Your task to perform on an android device: add a contact in the contacts app Image 0: 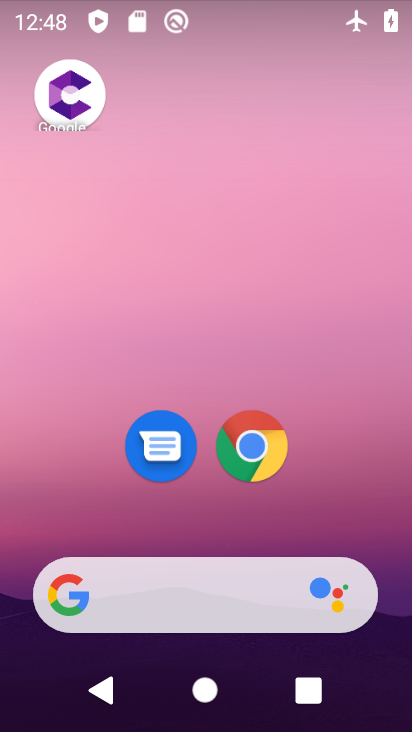
Step 0: drag from (155, 636) to (223, 94)
Your task to perform on an android device: add a contact in the contacts app Image 1: 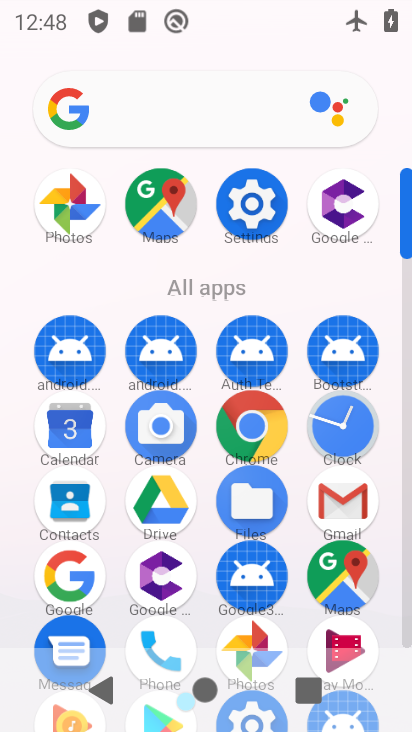
Step 1: click (83, 515)
Your task to perform on an android device: add a contact in the contacts app Image 2: 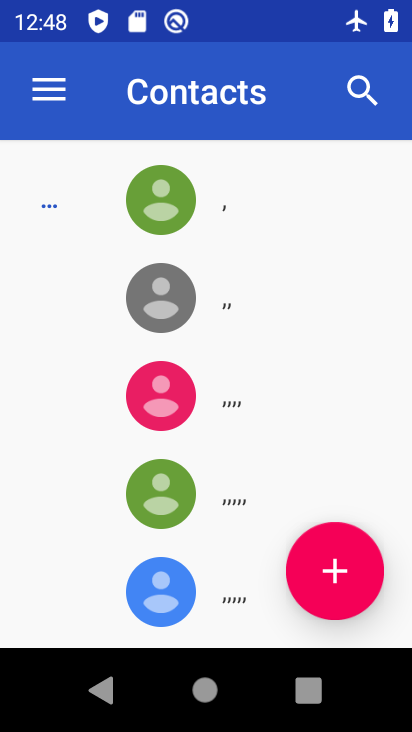
Step 2: click (333, 574)
Your task to perform on an android device: add a contact in the contacts app Image 3: 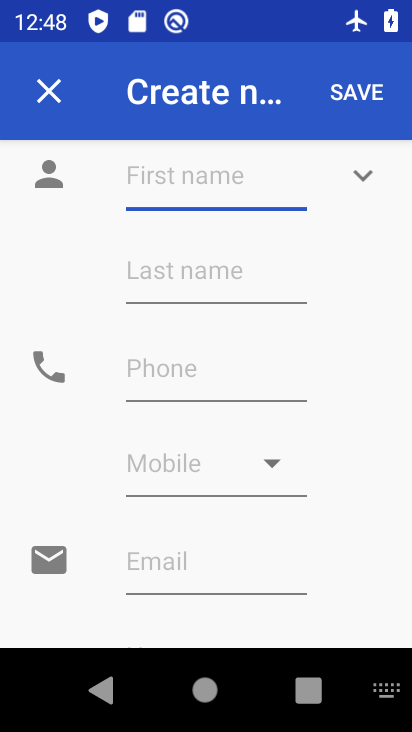
Step 3: type "uyguyg"
Your task to perform on an android device: add a contact in the contacts app Image 4: 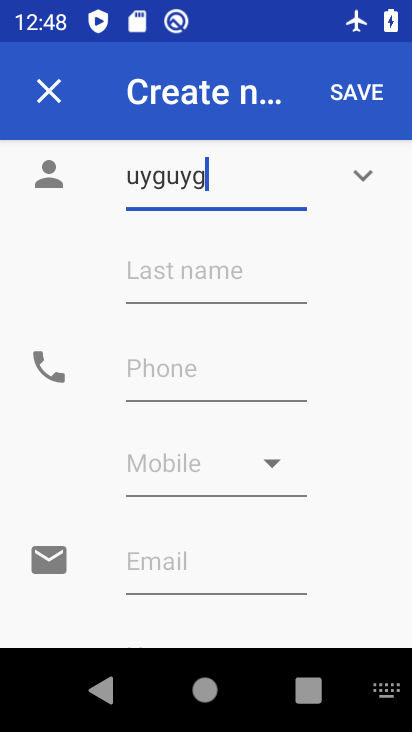
Step 4: click (183, 379)
Your task to perform on an android device: add a contact in the contacts app Image 5: 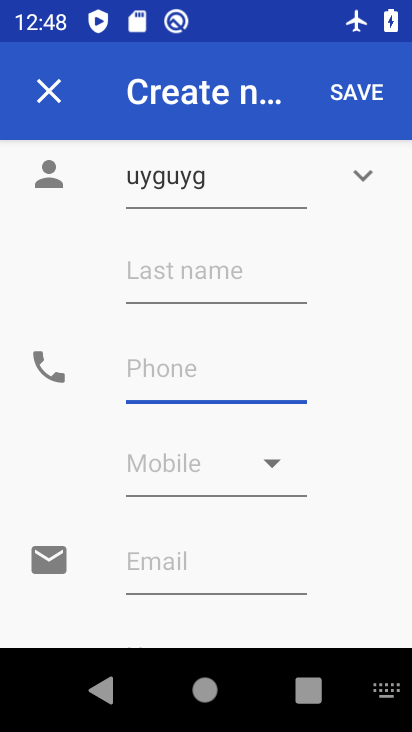
Step 5: type "89798"
Your task to perform on an android device: add a contact in the contacts app Image 6: 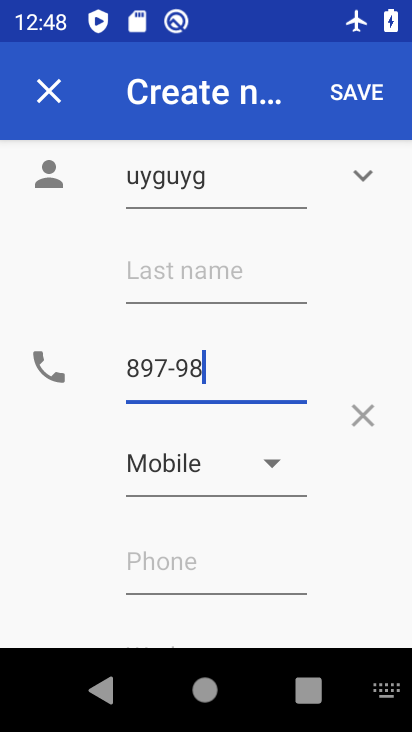
Step 6: click (359, 86)
Your task to perform on an android device: add a contact in the contacts app Image 7: 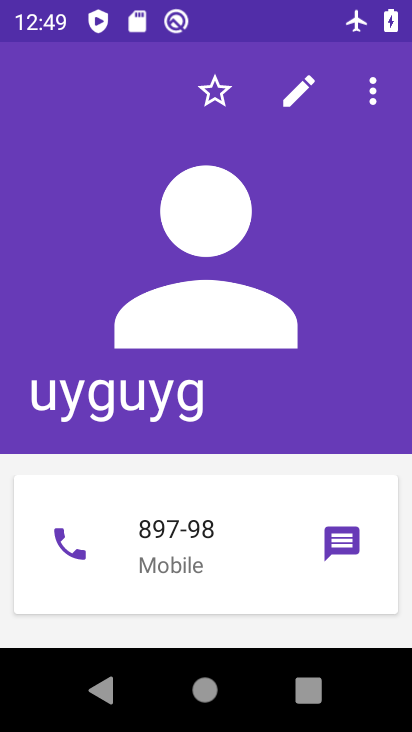
Step 7: task complete